Your task to perform on an android device: Check the news Image 0: 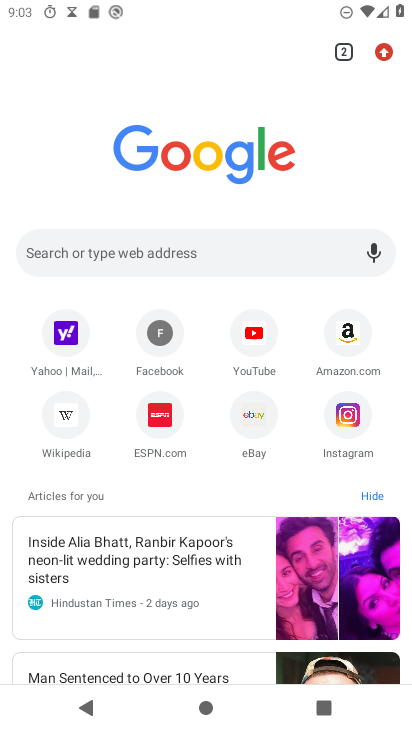
Step 0: drag from (259, 607) to (288, 46)
Your task to perform on an android device: Check the news Image 1: 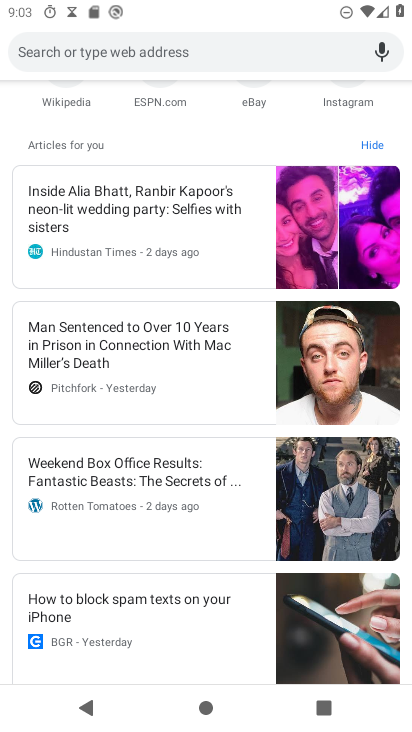
Step 1: task complete